Your task to perform on an android device: Open the calendar app, open the side menu, and click the "Day" option Image 0: 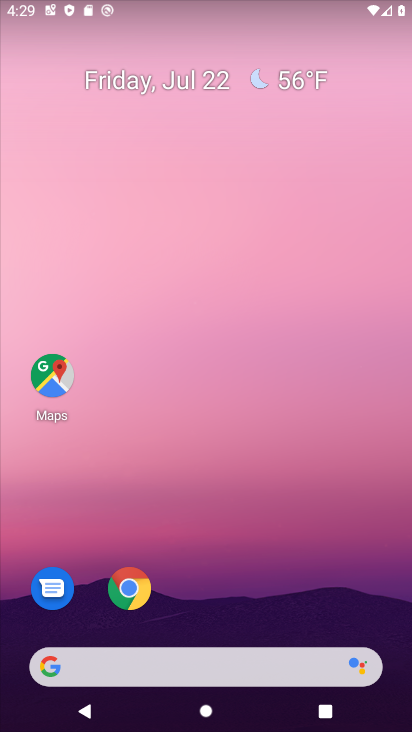
Step 0: drag from (181, 594) to (188, 211)
Your task to perform on an android device: Open the calendar app, open the side menu, and click the "Day" option Image 1: 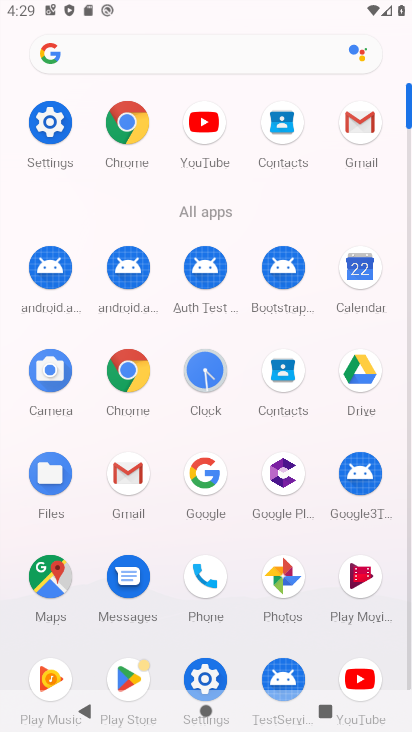
Step 1: click (354, 295)
Your task to perform on an android device: Open the calendar app, open the side menu, and click the "Day" option Image 2: 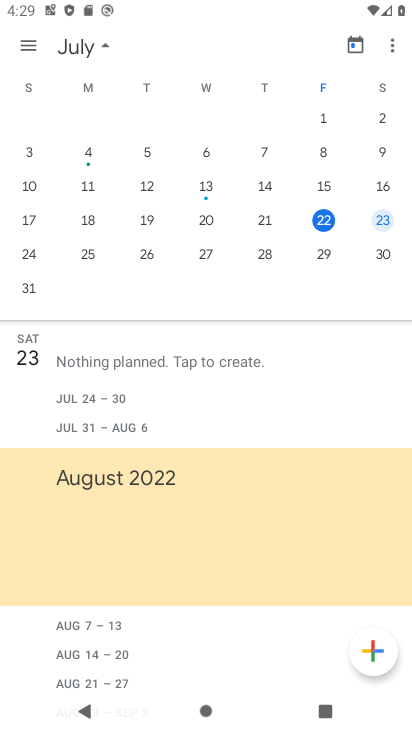
Step 2: click (23, 42)
Your task to perform on an android device: Open the calendar app, open the side menu, and click the "Day" option Image 3: 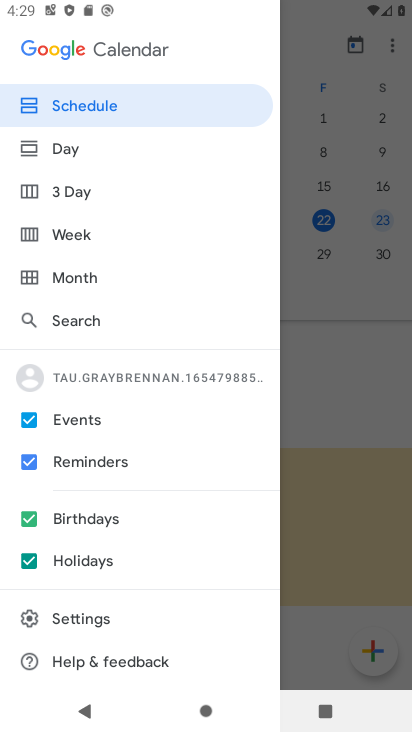
Step 3: click (61, 147)
Your task to perform on an android device: Open the calendar app, open the side menu, and click the "Day" option Image 4: 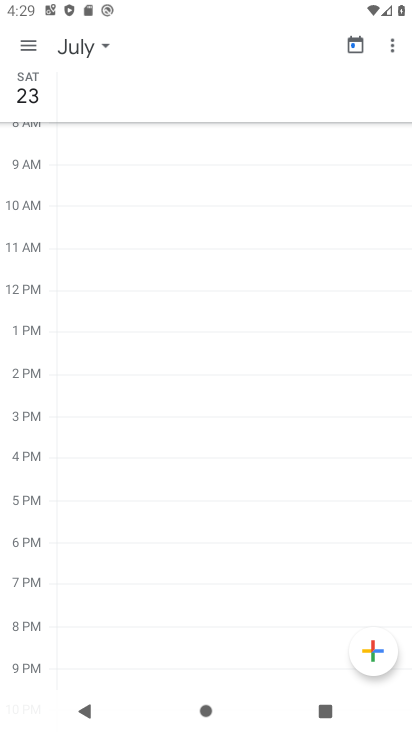
Step 4: click (36, 39)
Your task to perform on an android device: Open the calendar app, open the side menu, and click the "Day" option Image 5: 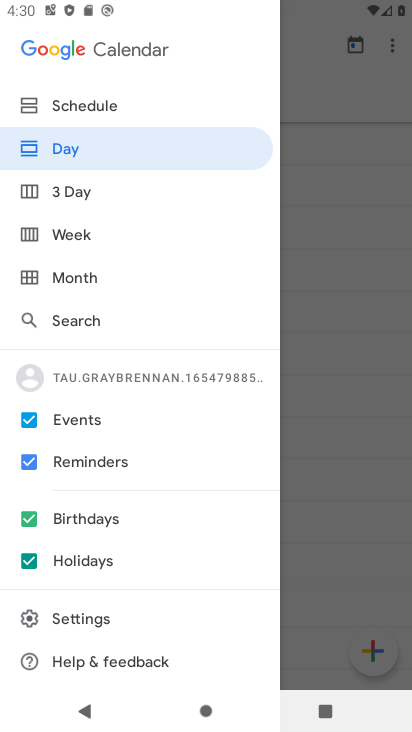
Step 5: task complete